Your task to perform on an android device: check the backup settings in the google photos Image 0: 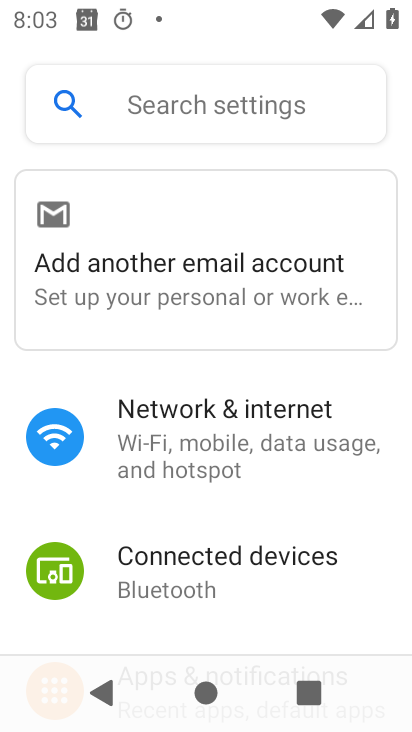
Step 0: press home button
Your task to perform on an android device: check the backup settings in the google photos Image 1: 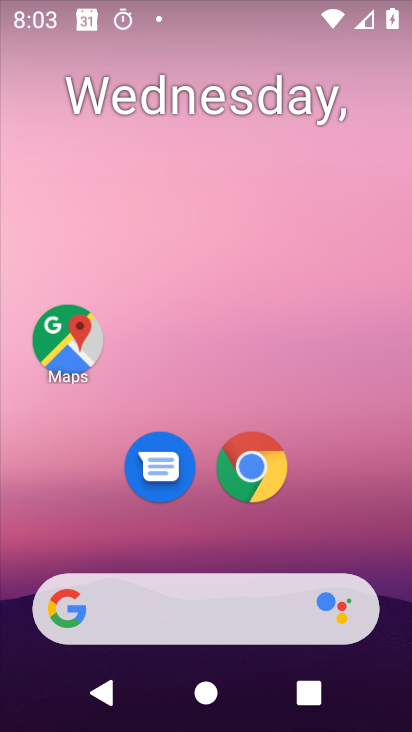
Step 1: drag from (393, 591) to (385, 135)
Your task to perform on an android device: check the backup settings in the google photos Image 2: 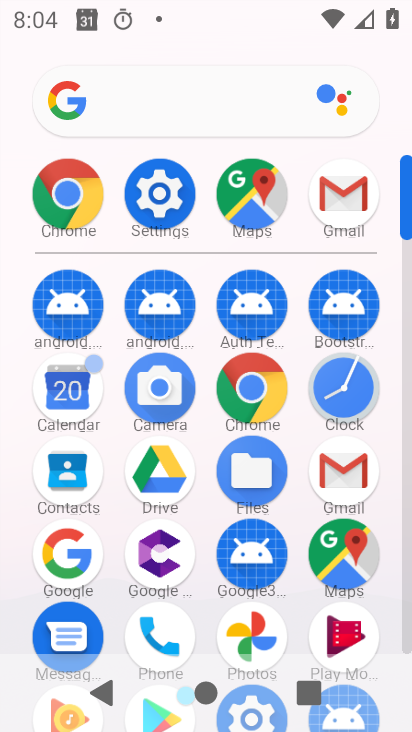
Step 2: click (238, 615)
Your task to perform on an android device: check the backup settings in the google photos Image 3: 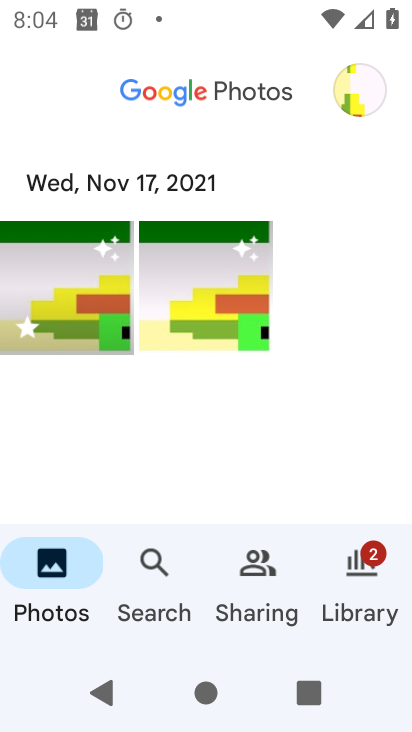
Step 3: click (366, 81)
Your task to perform on an android device: check the backup settings in the google photos Image 4: 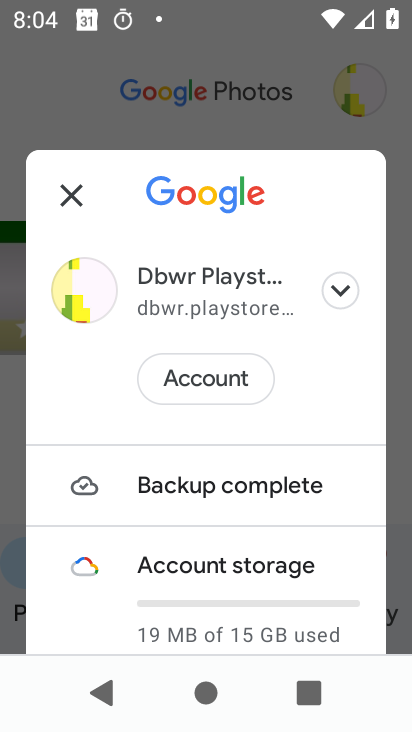
Step 4: click (167, 483)
Your task to perform on an android device: check the backup settings in the google photos Image 5: 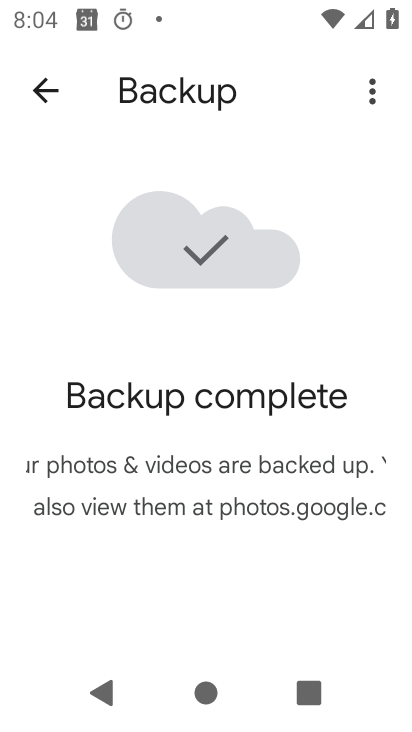
Step 5: click (370, 82)
Your task to perform on an android device: check the backup settings in the google photos Image 6: 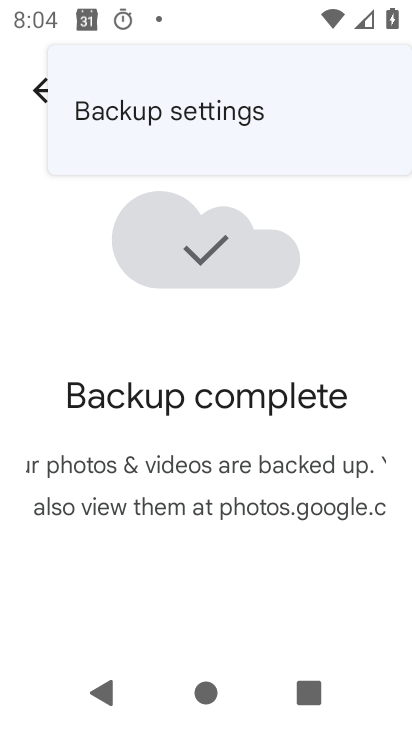
Step 6: click (221, 107)
Your task to perform on an android device: check the backup settings in the google photos Image 7: 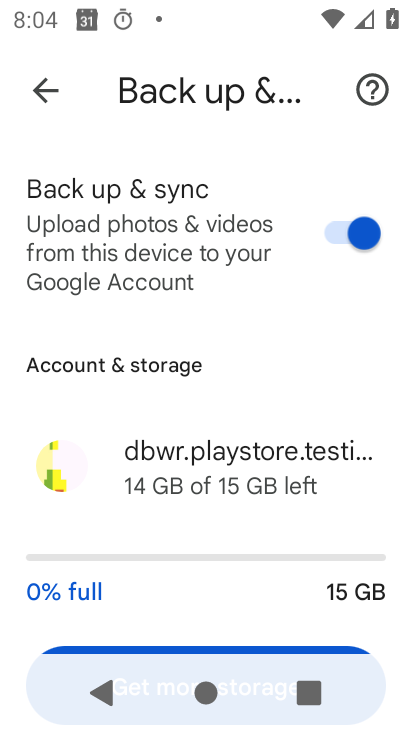
Step 7: task complete